Your task to perform on an android device: change alarm snooze length Image 0: 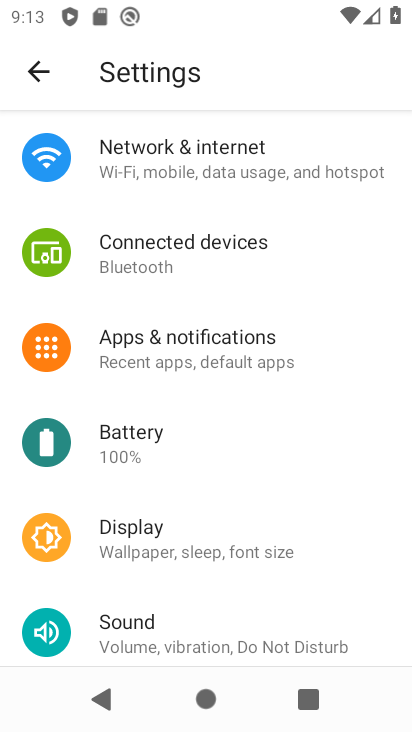
Step 0: task complete